Your task to perform on an android device: Go to notification settings Image 0: 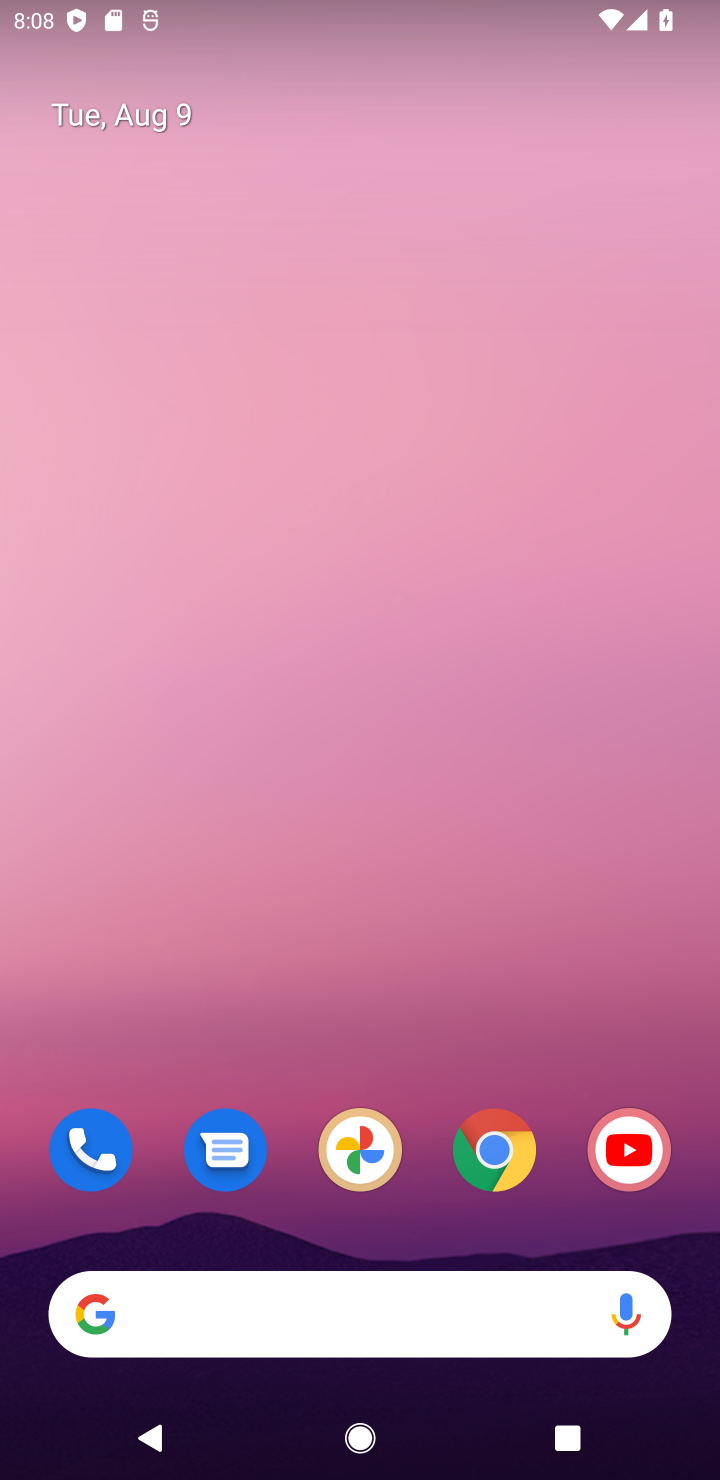
Step 0: press home button
Your task to perform on an android device: Go to notification settings Image 1: 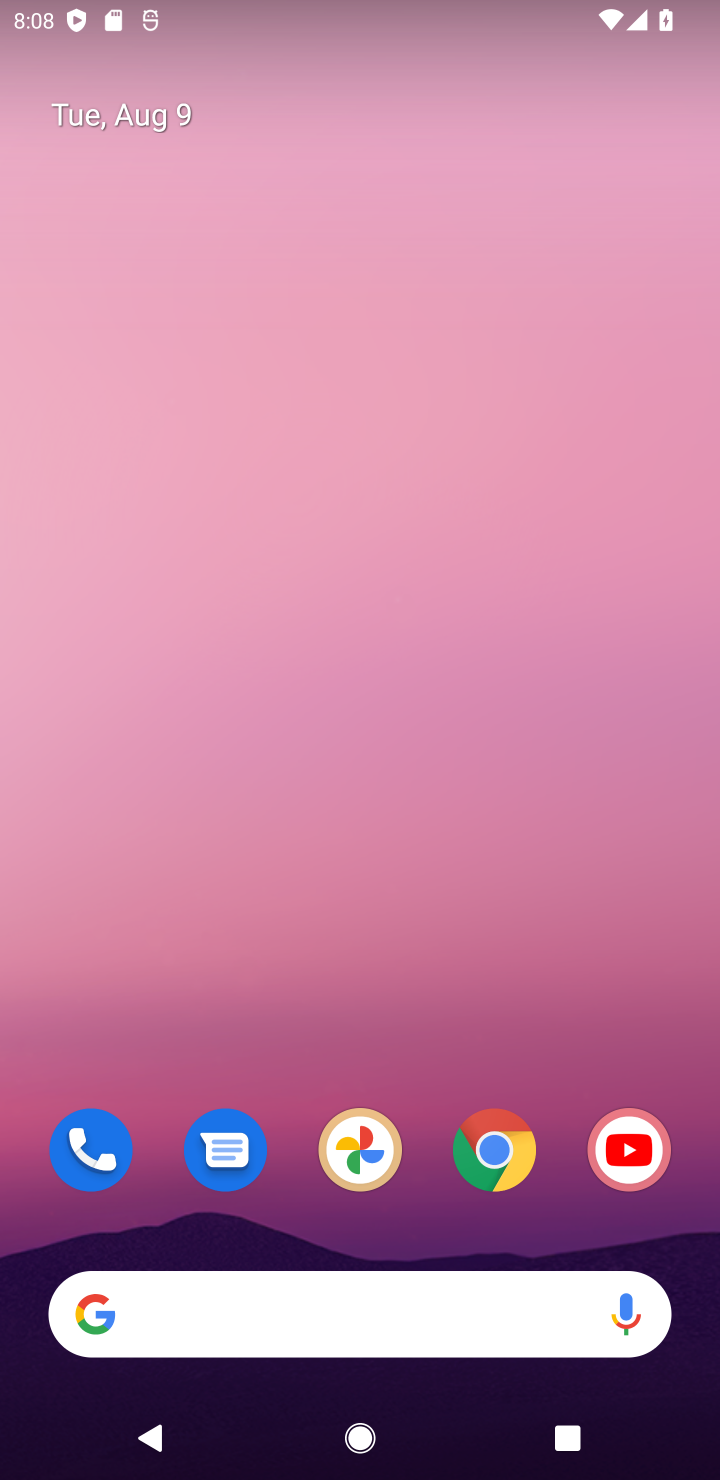
Step 1: drag from (473, 1183) to (540, 354)
Your task to perform on an android device: Go to notification settings Image 2: 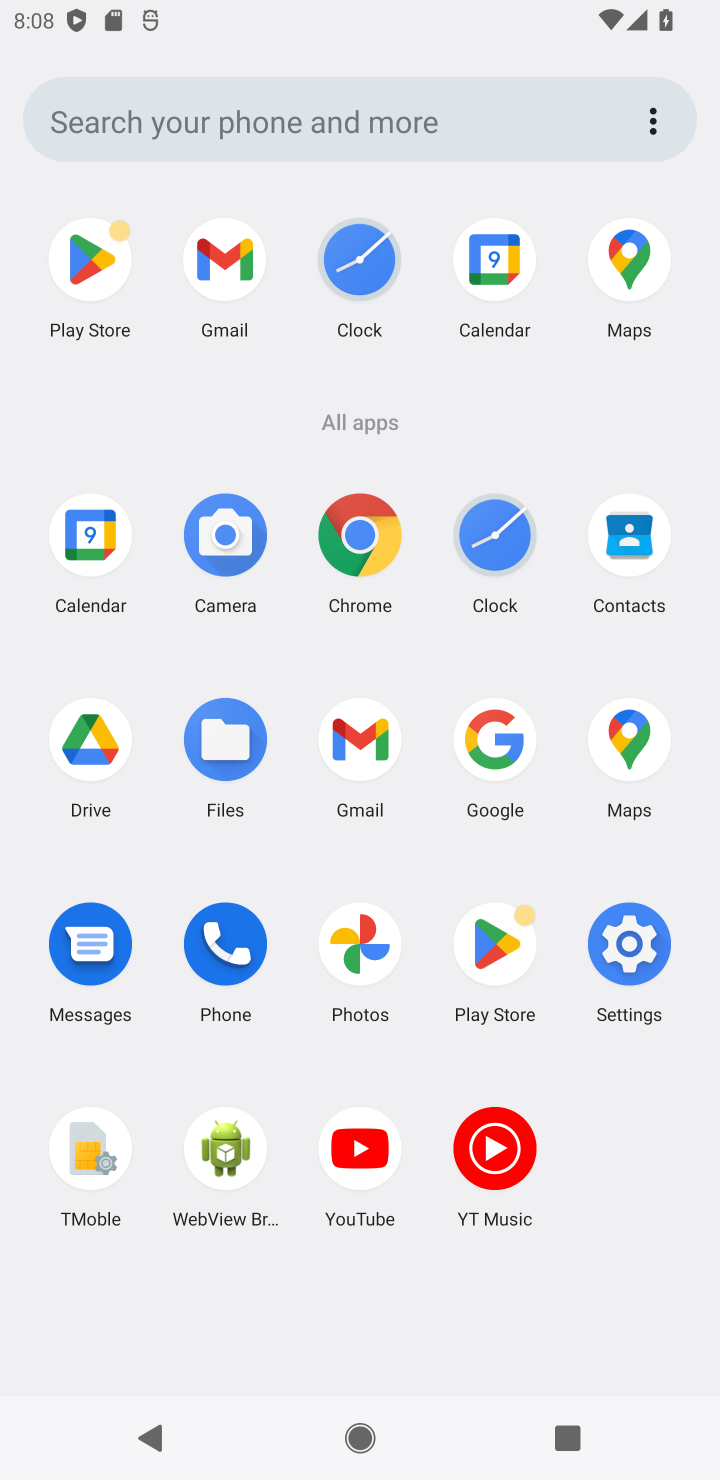
Step 2: click (646, 938)
Your task to perform on an android device: Go to notification settings Image 3: 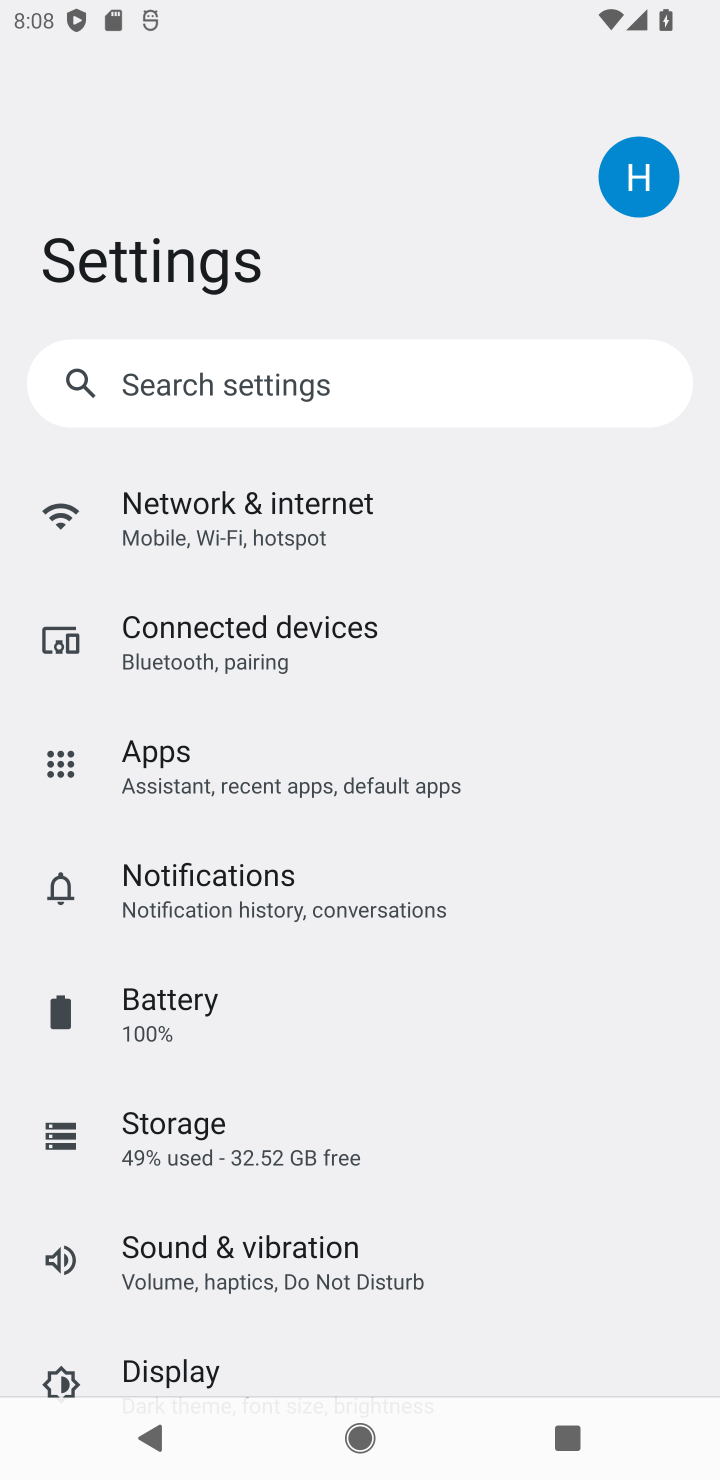
Step 3: click (293, 899)
Your task to perform on an android device: Go to notification settings Image 4: 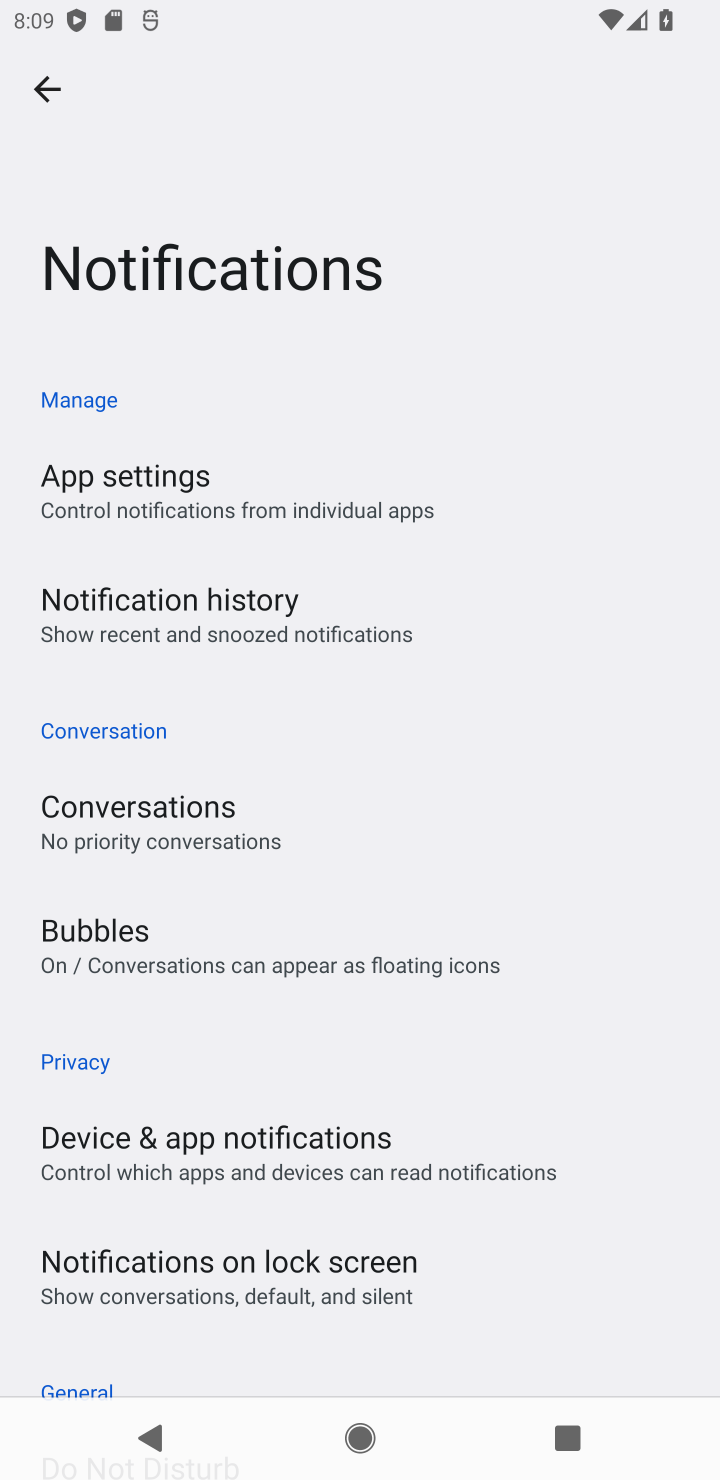
Step 4: task complete